Your task to perform on an android device: See recent photos Image 0: 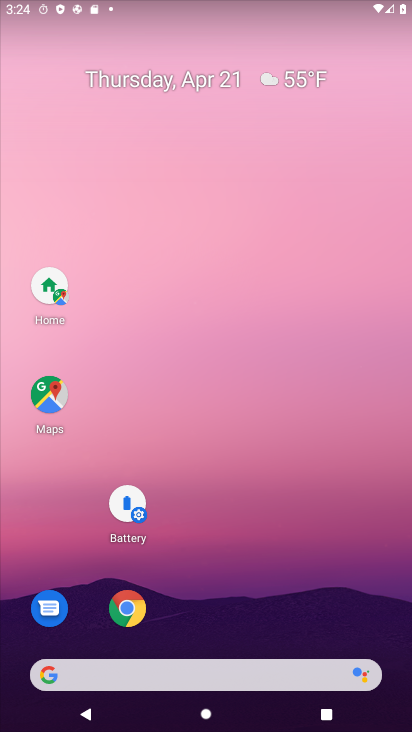
Step 0: drag from (304, 381) to (298, 28)
Your task to perform on an android device: See recent photos Image 1: 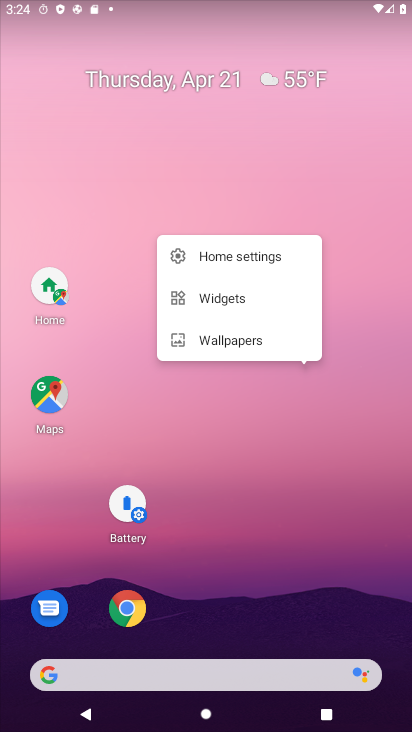
Step 1: click (273, 546)
Your task to perform on an android device: See recent photos Image 2: 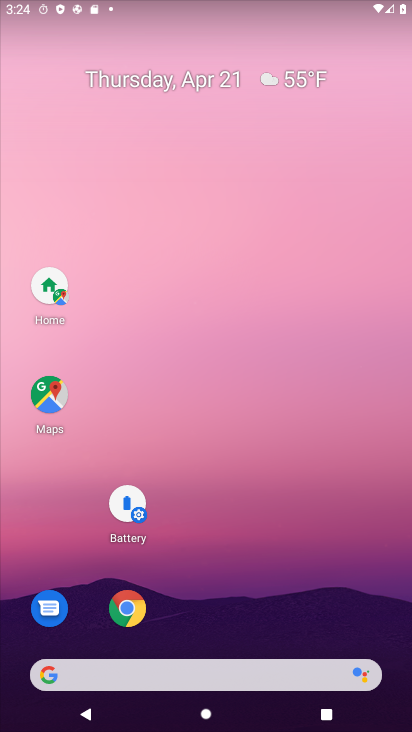
Step 2: drag from (257, 369) to (275, 124)
Your task to perform on an android device: See recent photos Image 3: 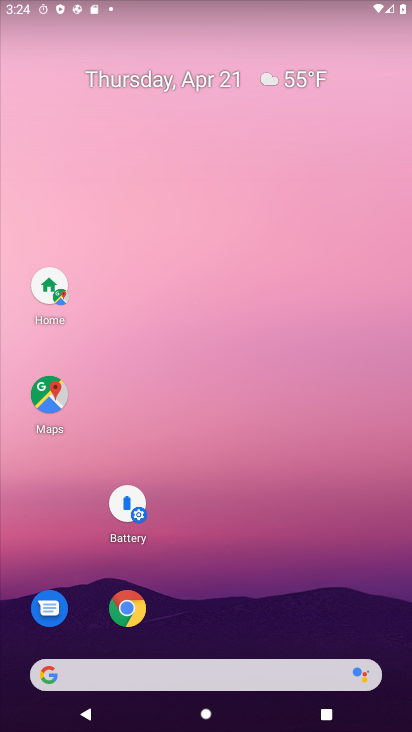
Step 3: drag from (291, 625) to (252, 73)
Your task to perform on an android device: See recent photos Image 4: 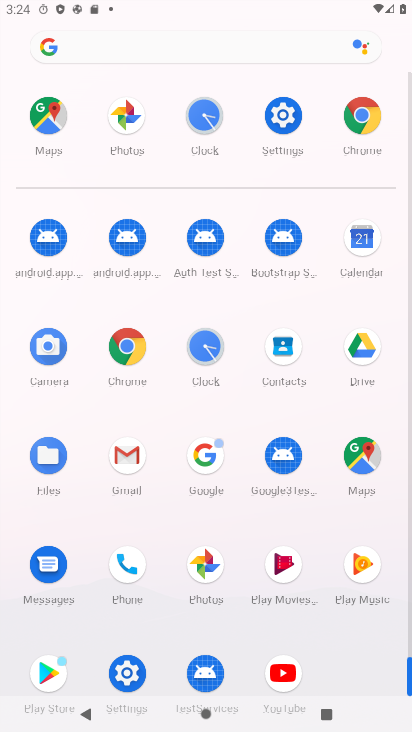
Step 4: click (132, 117)
Your task to perform on an android device: See recent photos Image 5: 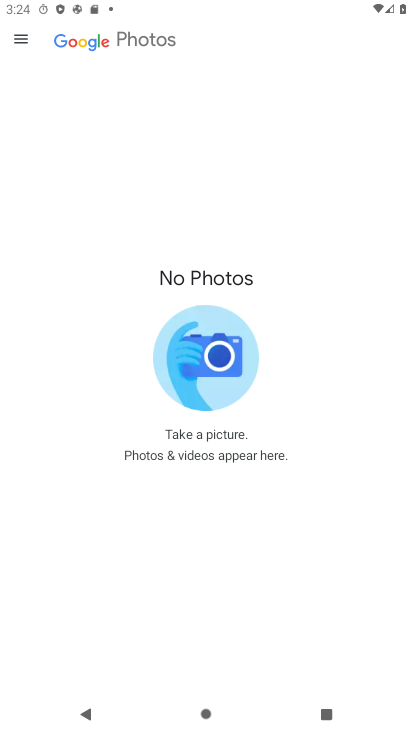
Step 5: click (32, 47)
Your task to perform on an android device: See recent photos Image 6: 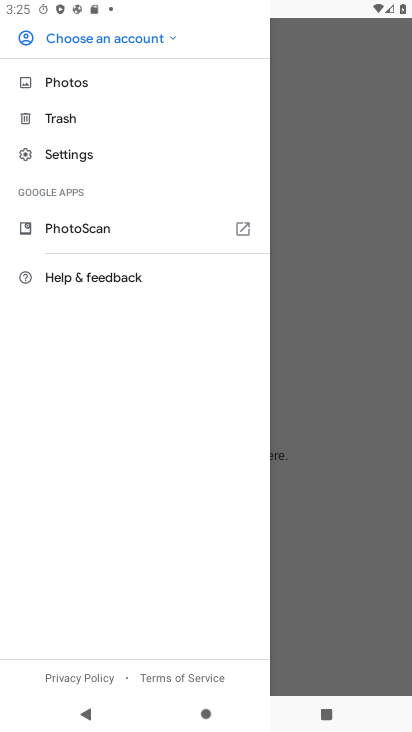
Step 6: click (65, 83)
Your task to perform on an android device: See recent photos Image 7: 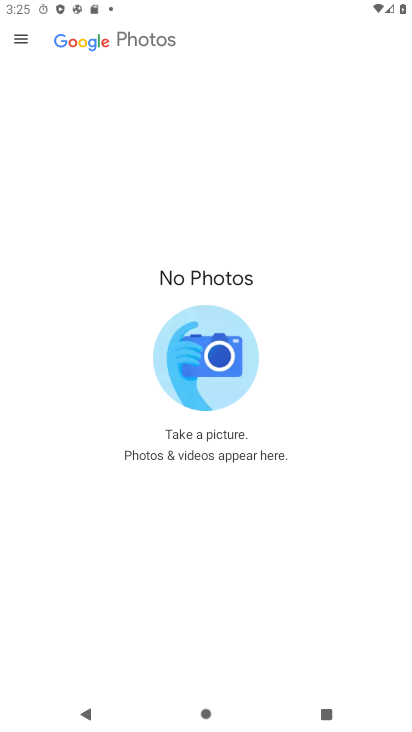
Step 7: task complete